Your task to perform on an android device: Open Google Chrome and open the bookmarks view Image 0: 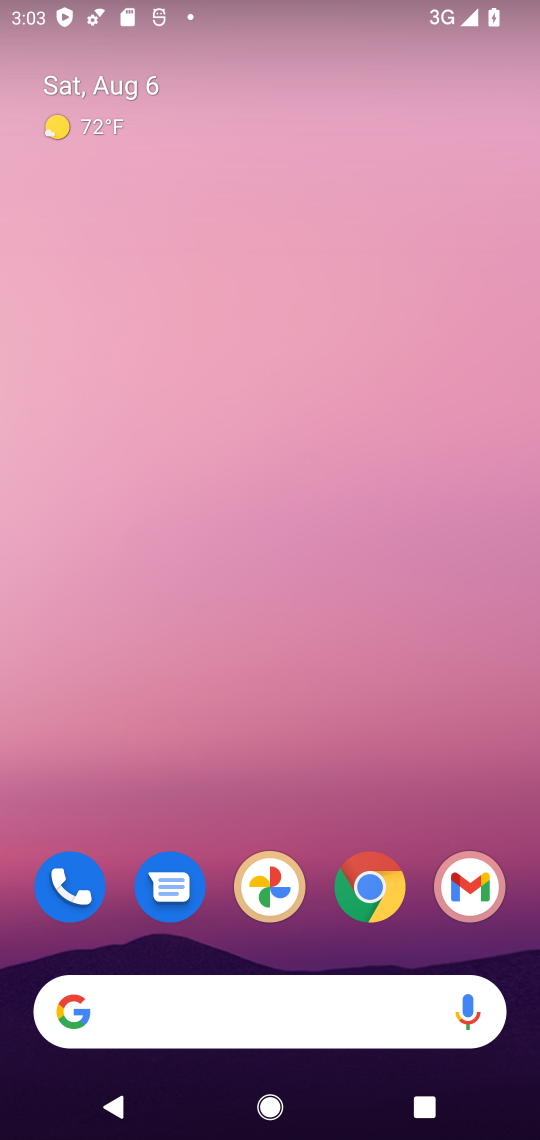
Step 0: drag from (407, 573) to (439, 187)
Your task to perform on an android device: Open Google Chrome and open the bookmarks view Image 1: 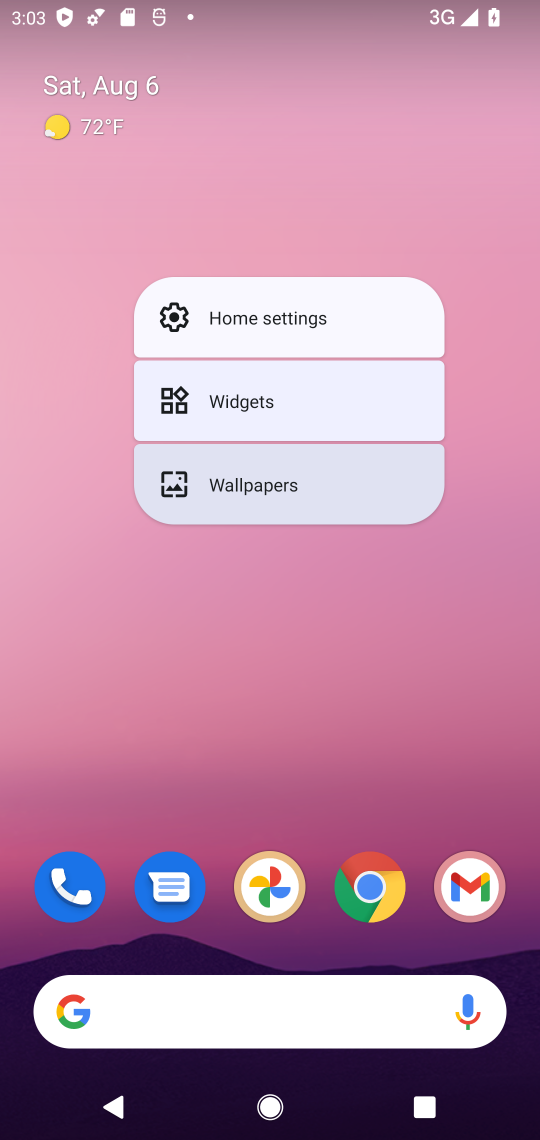
Step 1: click (452, 625)
Your task to perform on an android device: Open Google Chrome and open the bookmarks view Image 2: 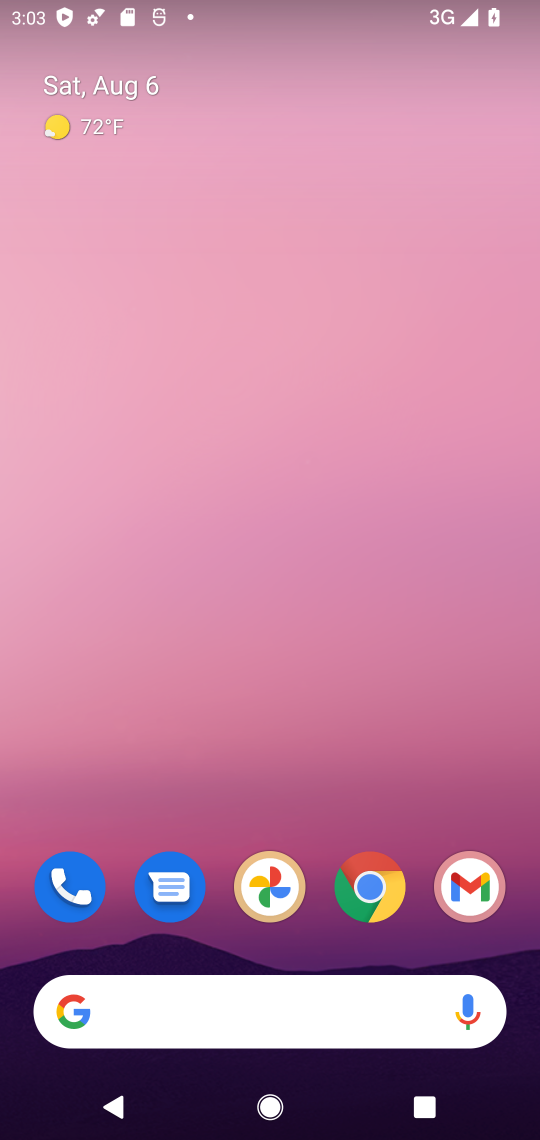
Step 2: drag from (382, 724) to (412, 134)
Your task to perform on an android device: Open Google Chrome and open the bookmarks view Image 3: 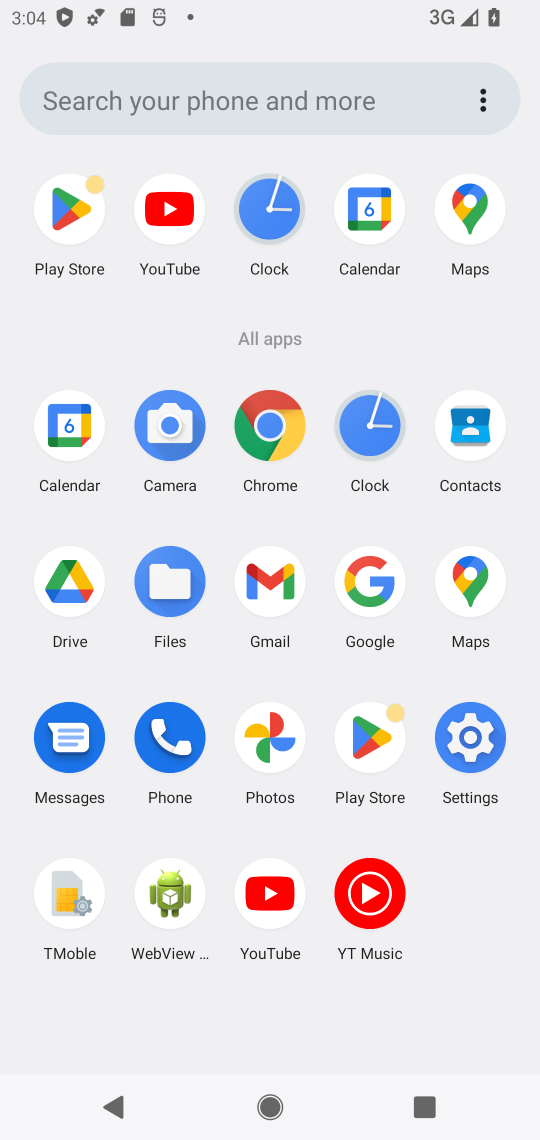
Step 3: click (273, 412)
Your task to perform on an android device: Open Google Chrome and open the bookmarks view Image 4: 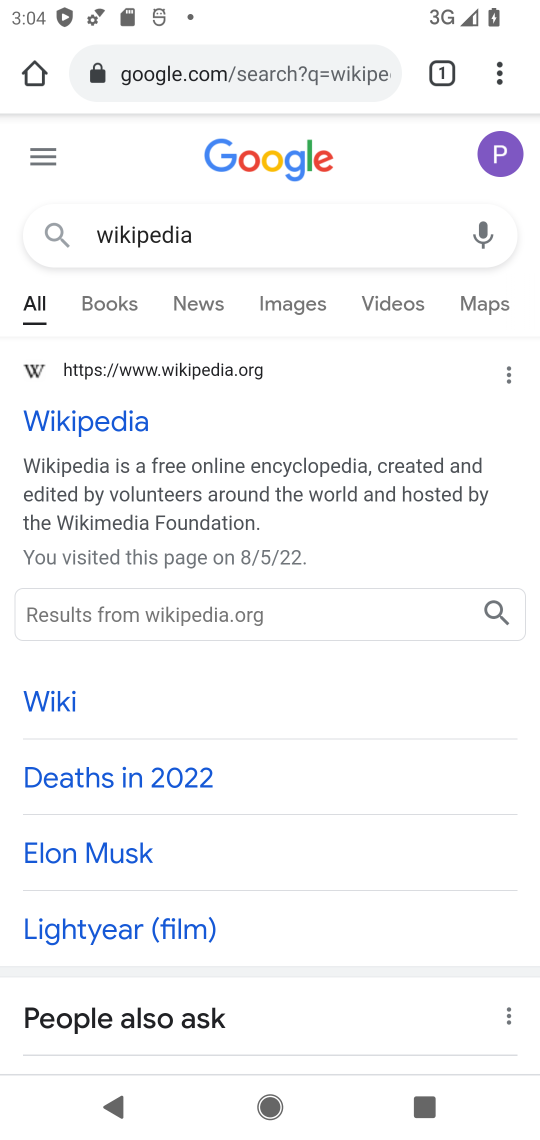
Step 4: drag from (400, 812) to (395, 574)
Your task to perform on an android device: Open Google Chrome and open the bookmarks view Image 5: 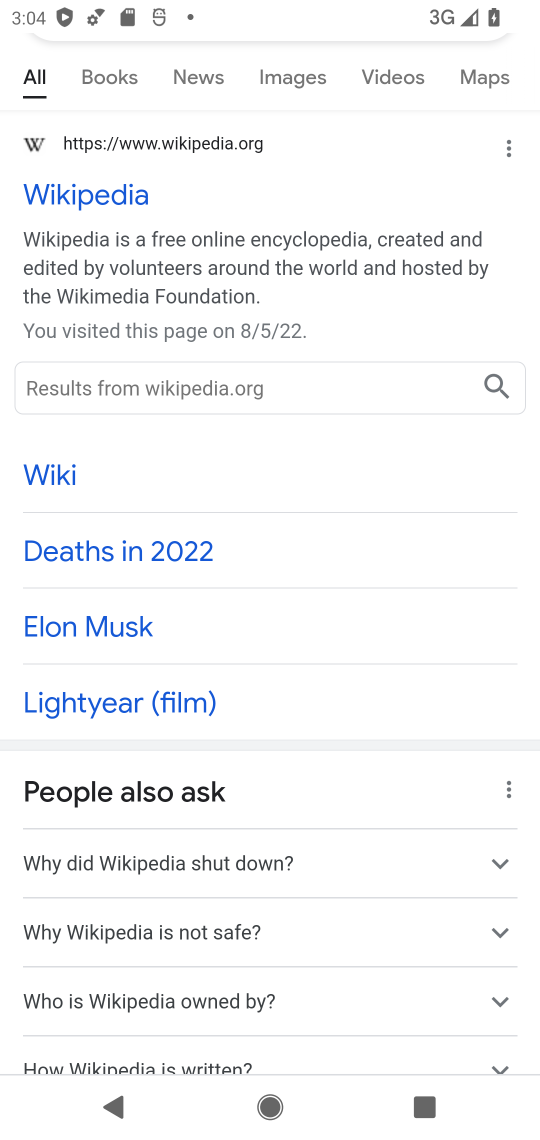
Step 5: drag from (405, 313) to (421, 688)
Your task to perform on an android device: Open Google Chrome and open the bookmarks view Image 6: 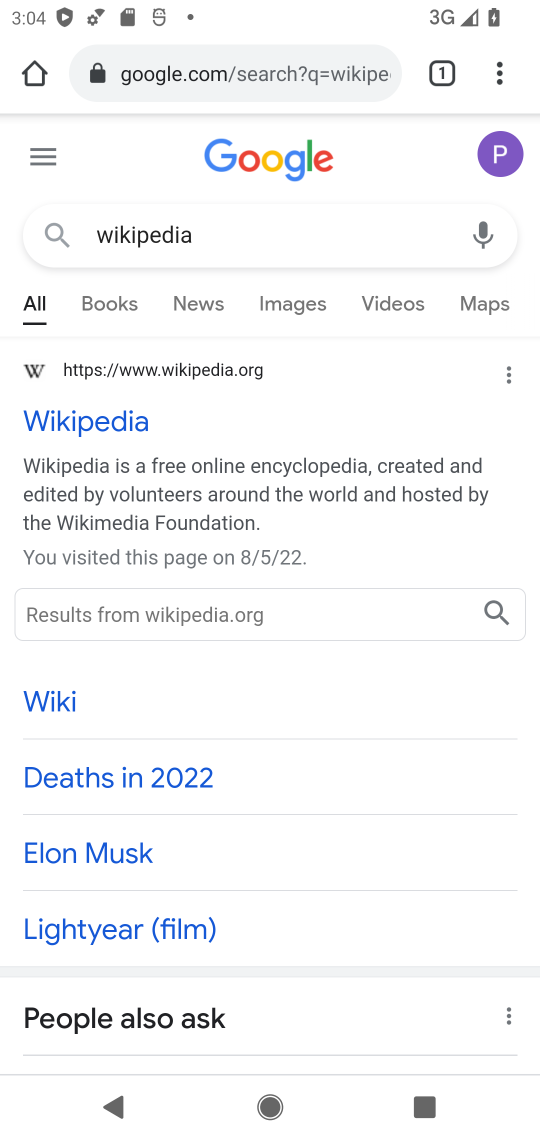
Step 6: click (497, 77)
Your task to perform on an android device: Open Google Chrome and open the bookmarks view Image 7: 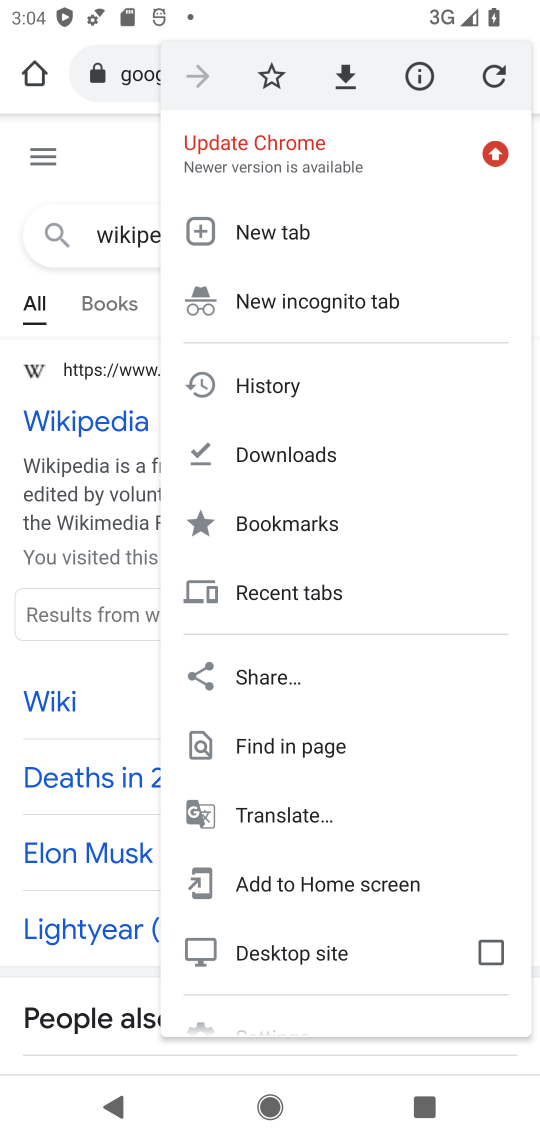
Step 7: click (316, 524)
Your task to perform on an android device: Open Google Chrome and open the bookmarks view Image 8: 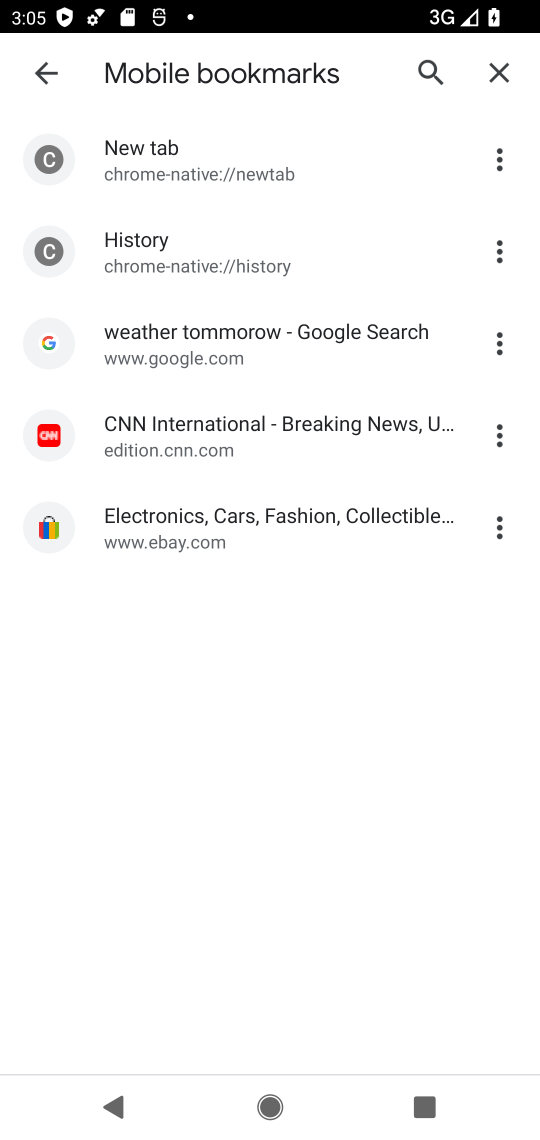
Step 8: task complete